Your task to perform on an android device: toggle notification dots Image 0: 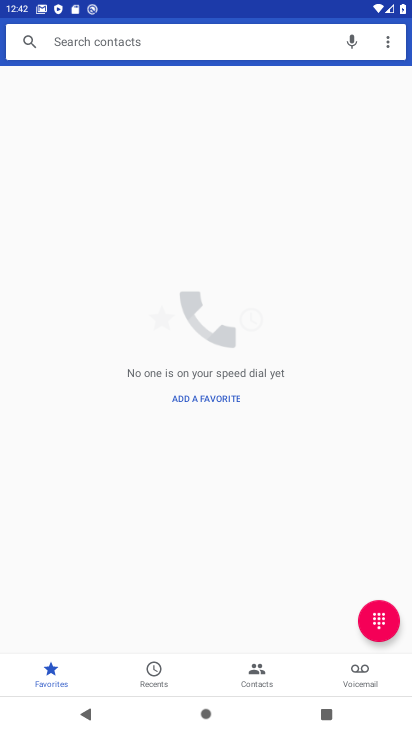
Step 0: press home button
Your task to perform on an android device: toggle notification dots Image 1: 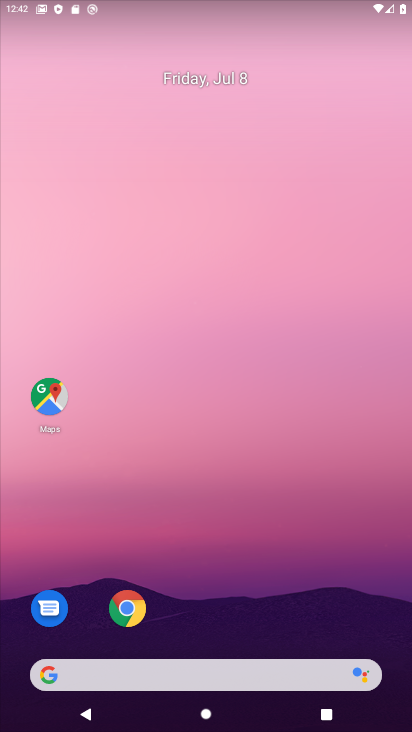
Step 1: drag from (328, 600) to (292, 55)
Your task to perform on an android device: toggle notification dots Image 2: 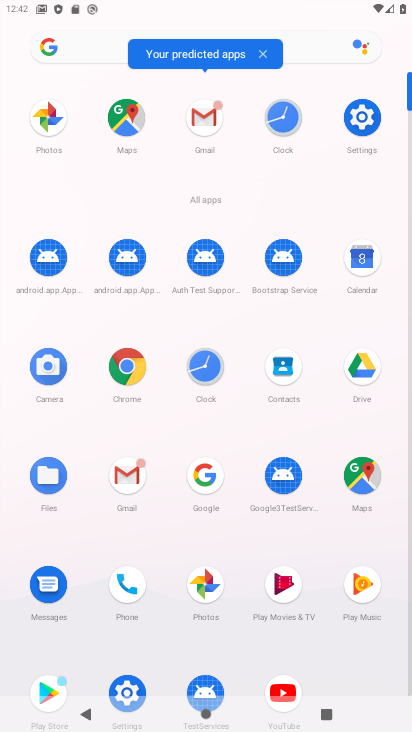
Step 2: click (125, 685)
Your task to perform on an android device: toggle notification dots Image 3: 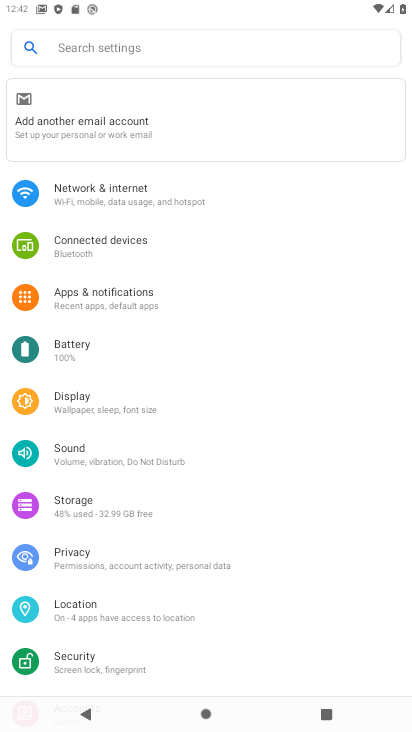
Step 3: click (95, 294)
Your task to perform on an android device: toggle notification dots Image 4: 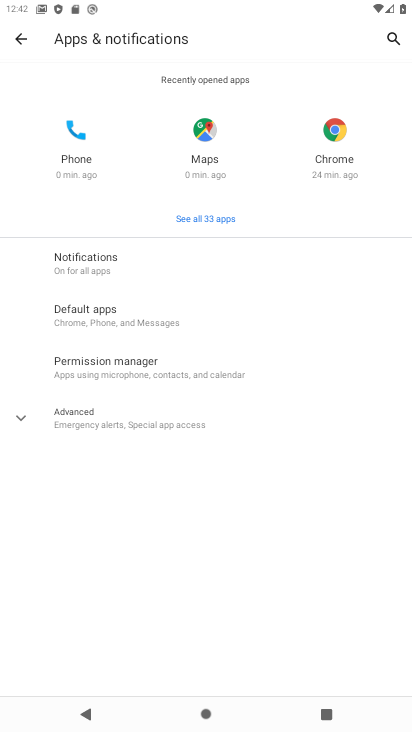
Step 4: click (64, 255)
Your task to perform on an android device: toggle notification dots Image 5: 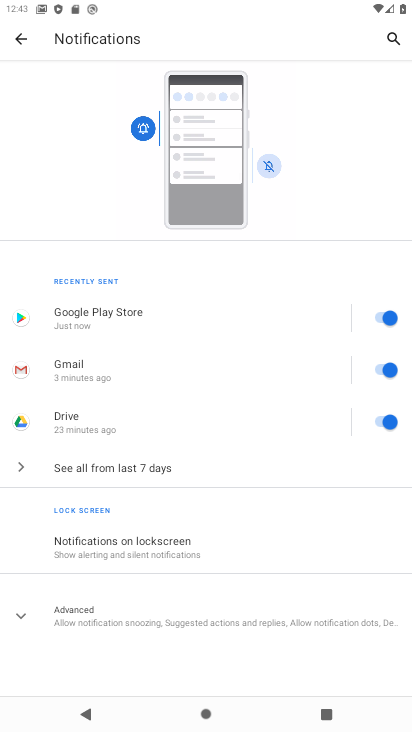
Step 5: click (20, 614)
Your task to perform on an android device: toggle notification dots Image 6: 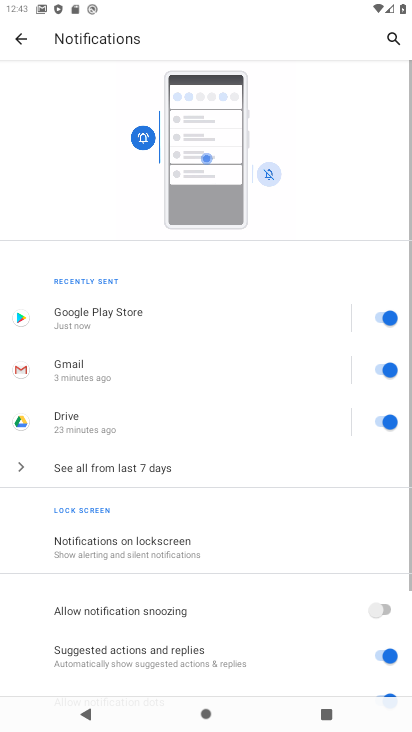
Step 6: drag from (225, 577) to (221, 245)
Your task to perform on an android device: toggle notification dots Image 7: 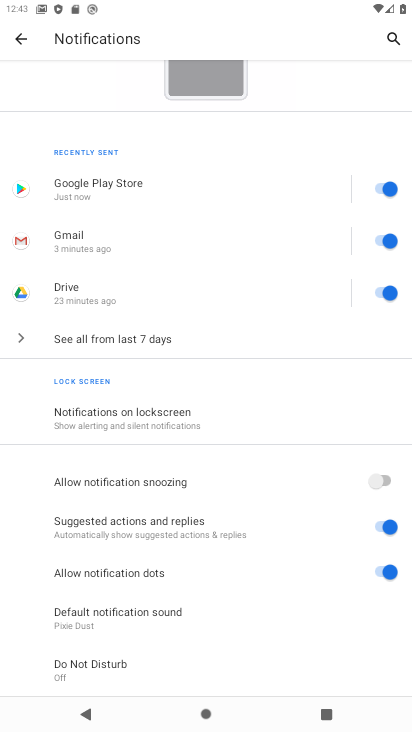
Step 7: click (379, 568)
Your task to perform on an android device: toggle notification dots Image 8: 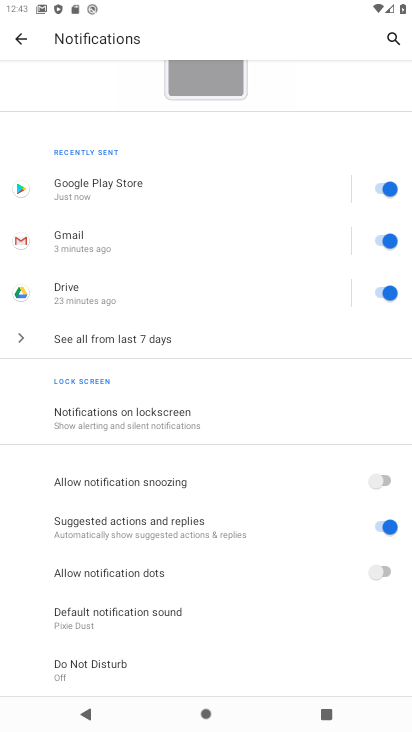
Step 8: task complete